Your task to perform on an android device: turn off priority inbox in the gmail app Image 0: 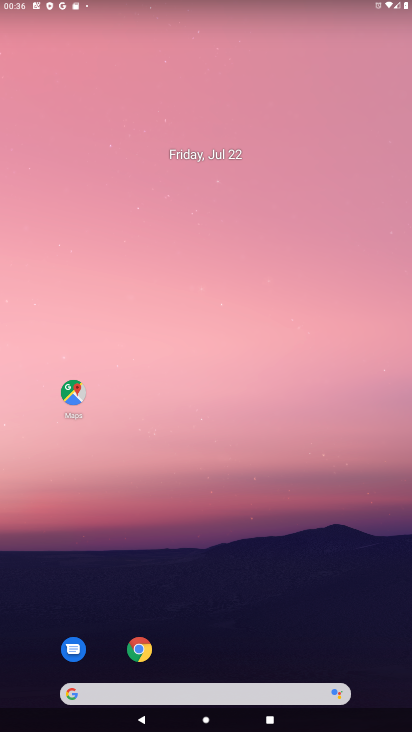
Step 0: drag from (284, 507) to (212, 94)
Your task to perform on an android device: turn off priority inbox in the gmail app Image 1: 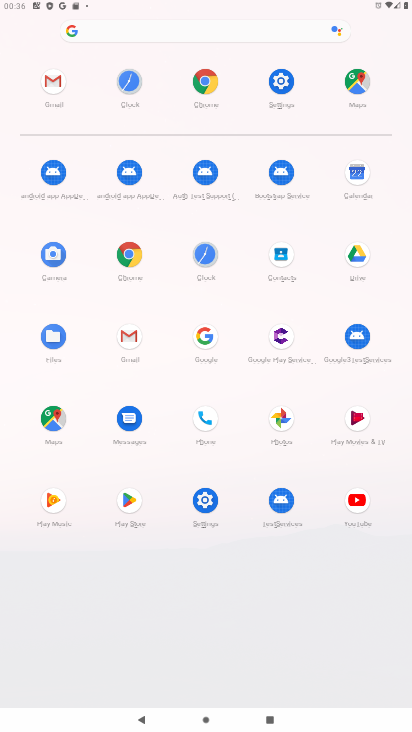
Step 1: click (59, 85)
Your task to perform on an android device: turn off priority inbox in the gmail app Image 2: 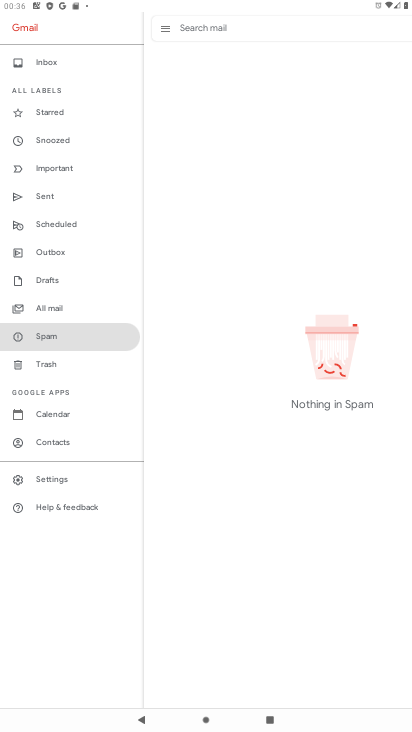
Step 2: click (46, 474)
Your task to perform on an android device: turn off priority inbox in the gmail app Image 3: 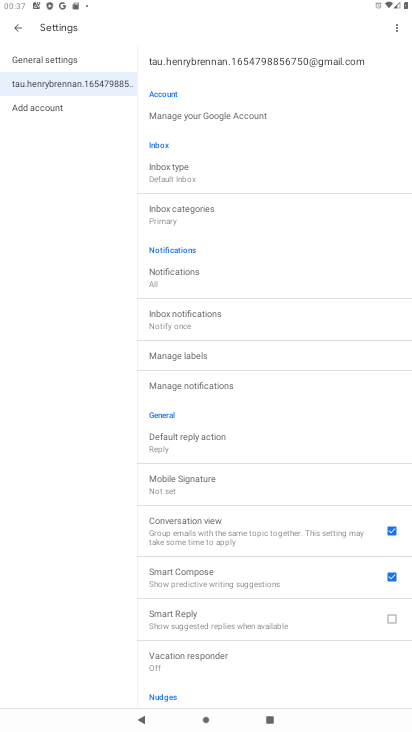
Step 3: click (179, 172)
Your task to perform on an android device: turn off priority inbox in the gmail app Image 4: 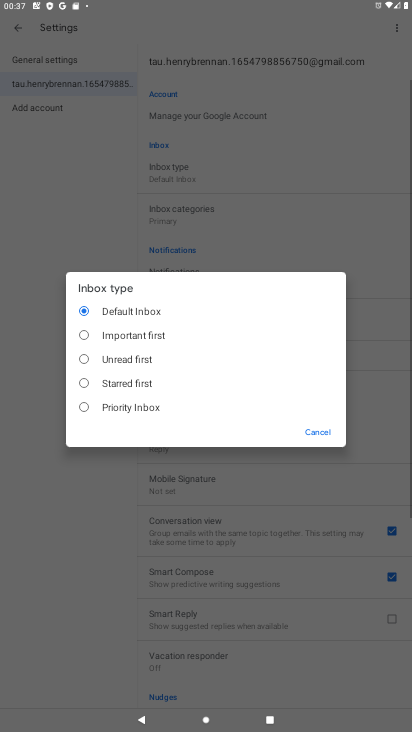
Step 4: task complete